Your task to perform on an android device: Go to accessibility settings Image 0: 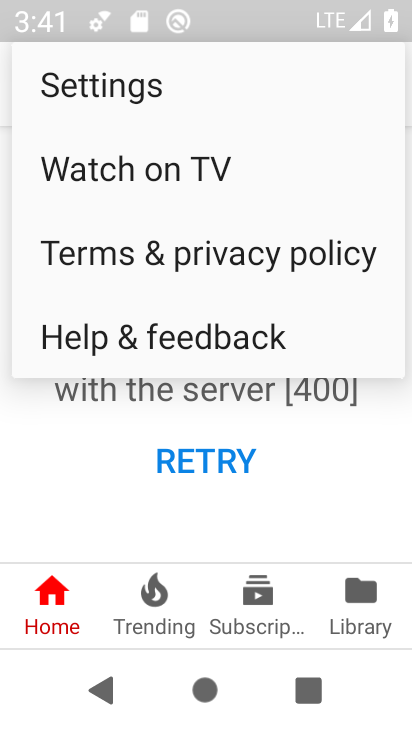
Step 0: press home button
Your task to perform on an android device: Go to accessibility settings Image 1: 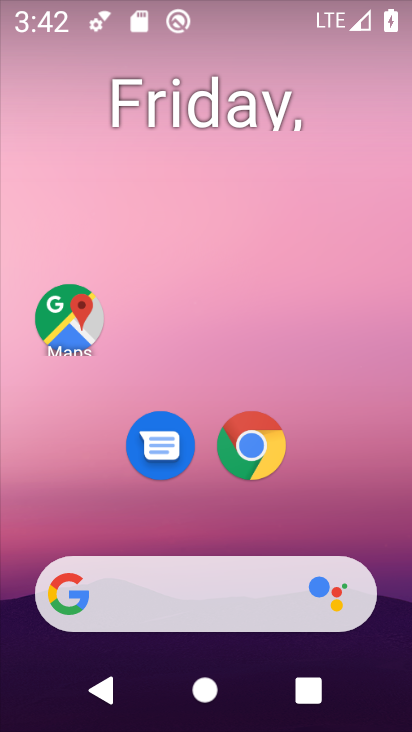
Step 1: drag from (382, 562) to (245, 186)
Your task to perform on an android device: Go to accessibility settings Image 2: 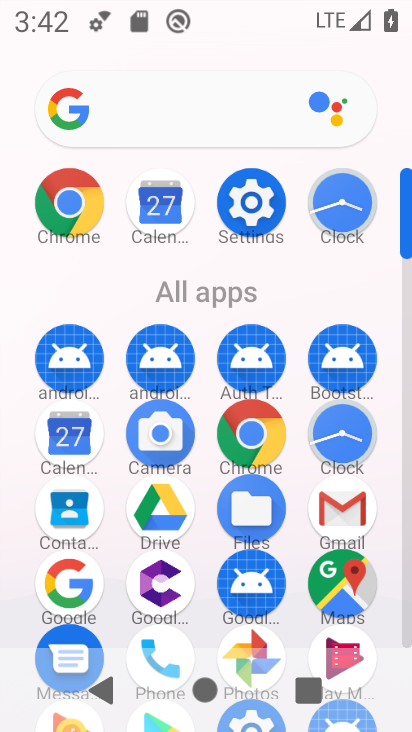
Step 2: click (251, 199)
Your task to perform on an android device: Go to accessibility settings Image 3: 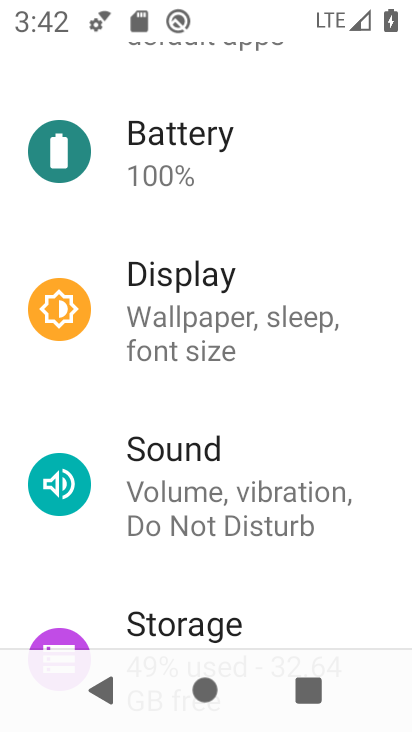
Step 3: drag from (257, 562) to (202, 128)
Your task to perform on an android device: Go to accessibility settings Image 4: 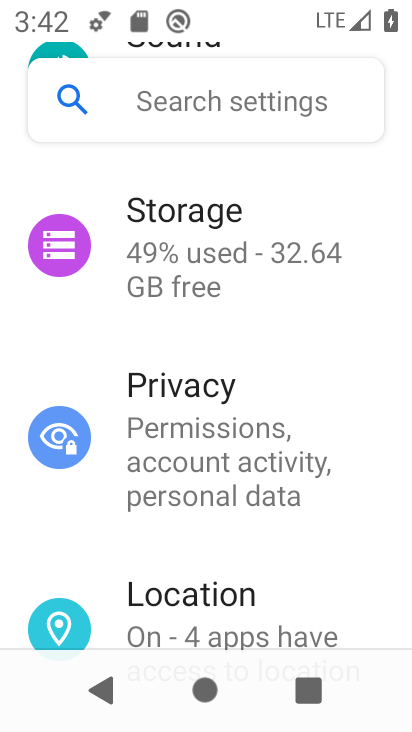
Step 4: drag from (230, 571) to (216, 51)
Your task to perform on an android device: Go to accessibility settings Image 5: 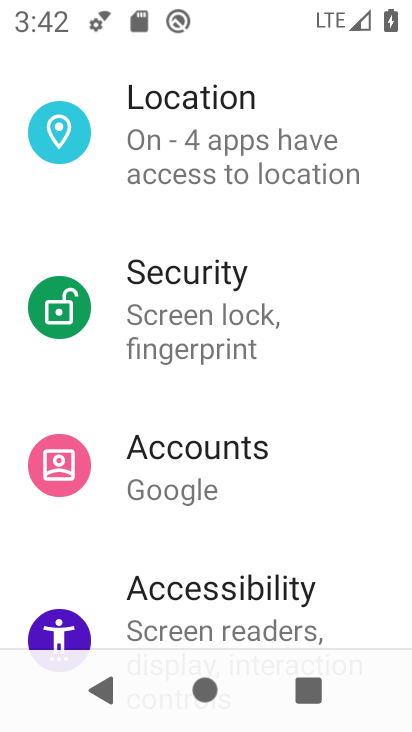
Step 5: click (229, 585)
Your task to perform on an android device: Go to accessibility settings Image 6: 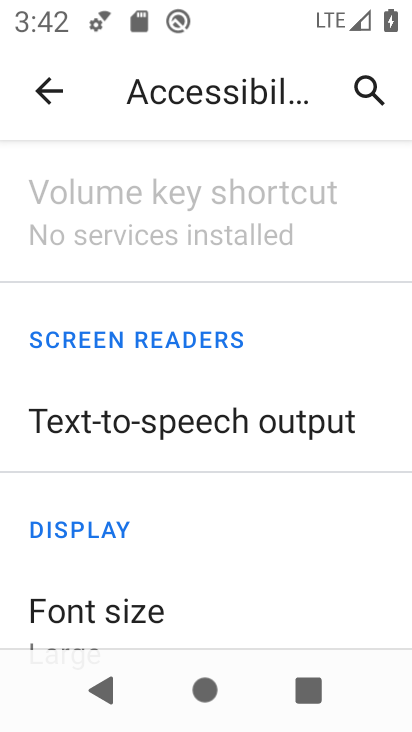
Step 6: task complete